Your task to perform on an android device: uninstall "WhatsApp Messenger" Image 0: 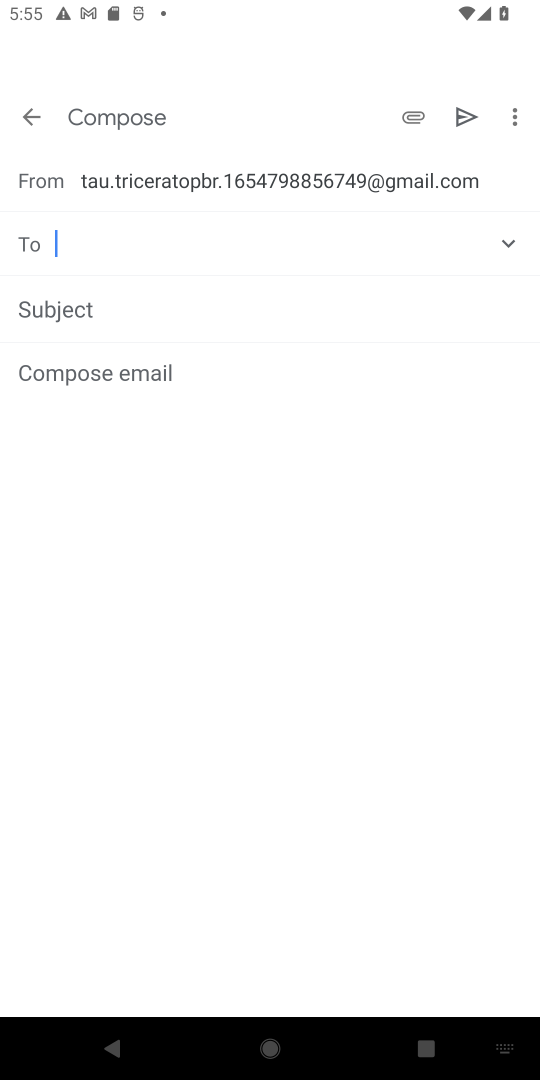
Step 0: press home button
Your task to perform on an android device: uninstall "WhatsApp Messenger" Image 1: 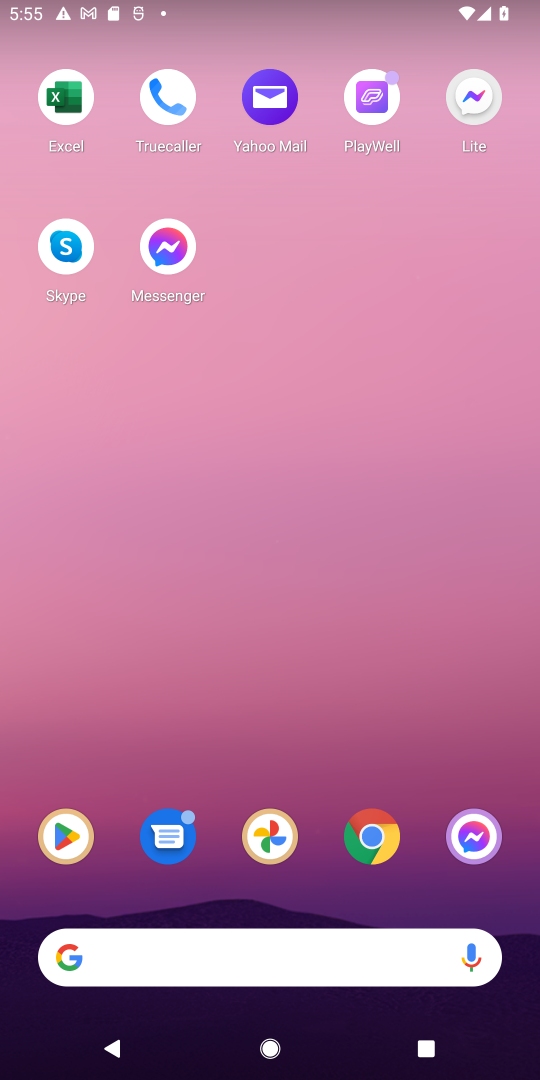
Step 1: click (66, 841)
Your task to perform on an android device: uninstall "WhatsApp Messenger" Image 2: 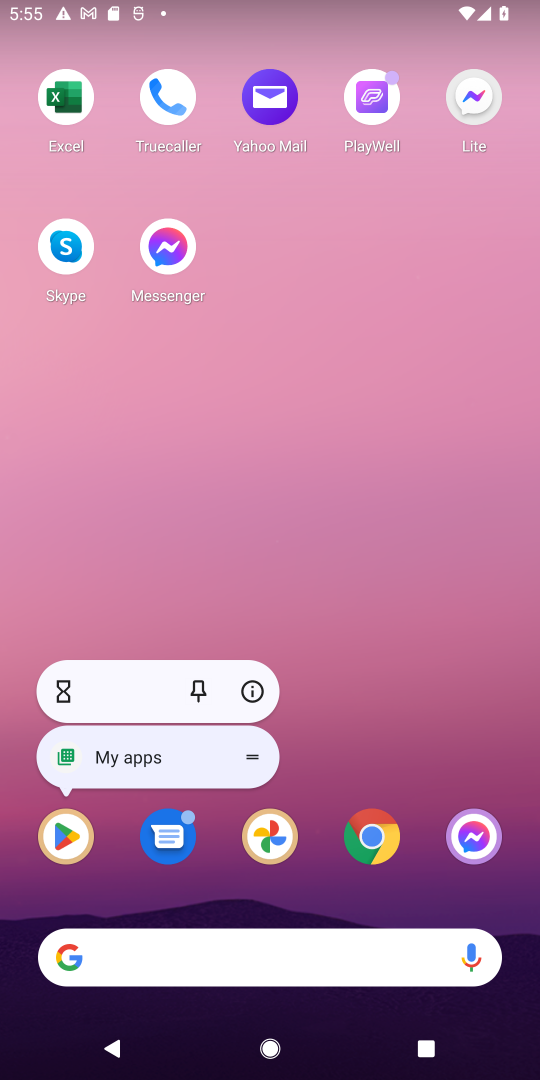
Step 2: click (70, 836)
Your task to perform on an android device: uninstall "WhatsApp Messenger" Image 3: 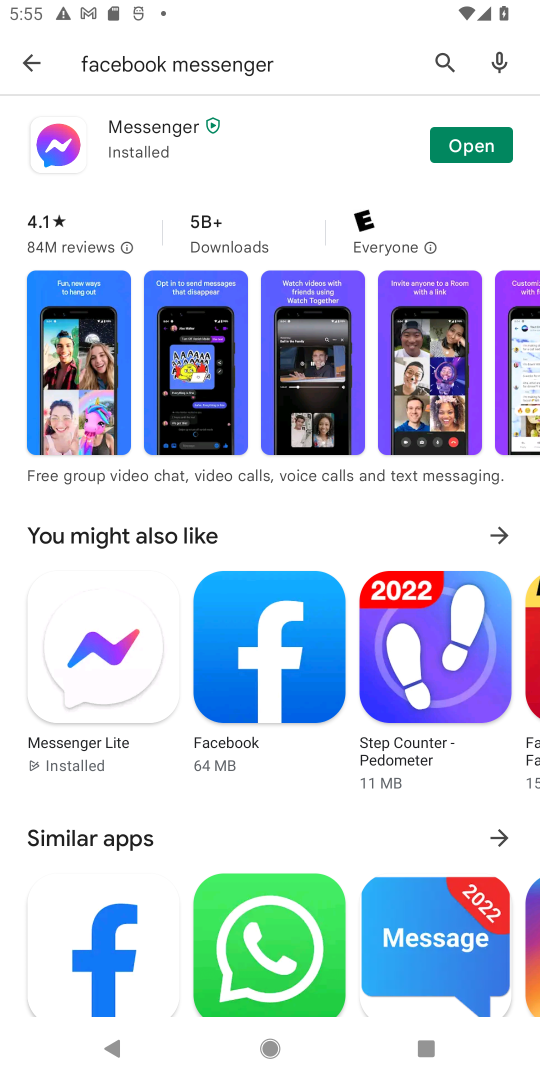
Step 3: click (442, 52)
Your task to perform on an android device: uninstall "WhatsApp Messenger" Image 4: 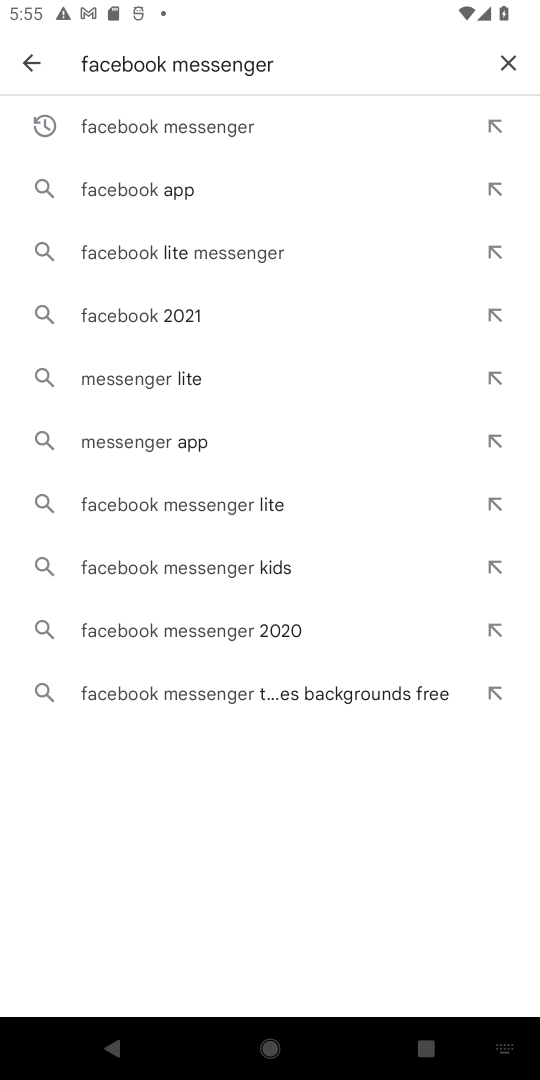
Step 4: click (511, 59)
Your task to perform on an android device: uninstall "WhatsApp Messenger" Image 5: 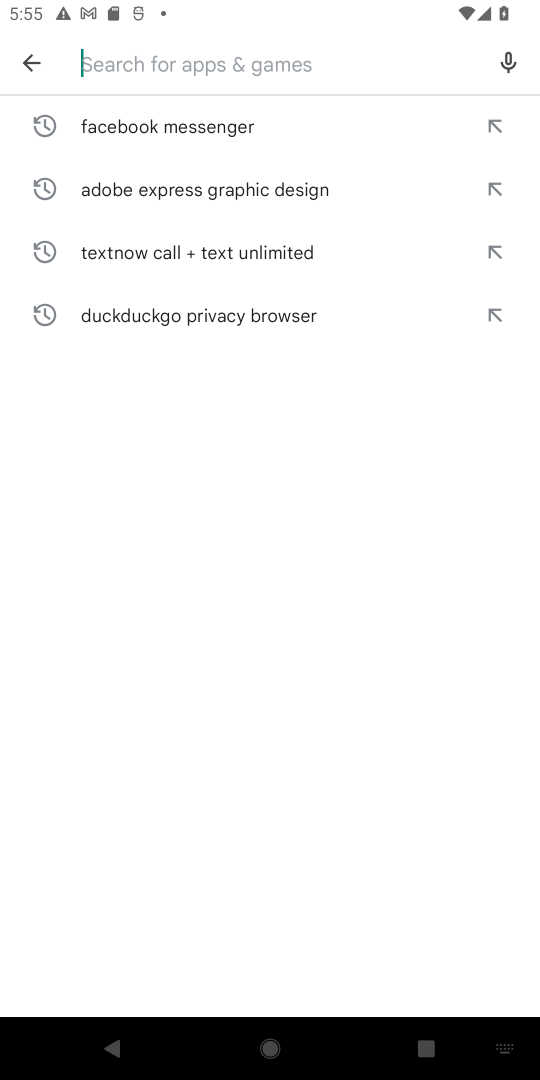
Step 5: type "WhatsApp Messenger"
Your task to perform on an android device: uninstall "WhatsApp Messenger" Image 6: 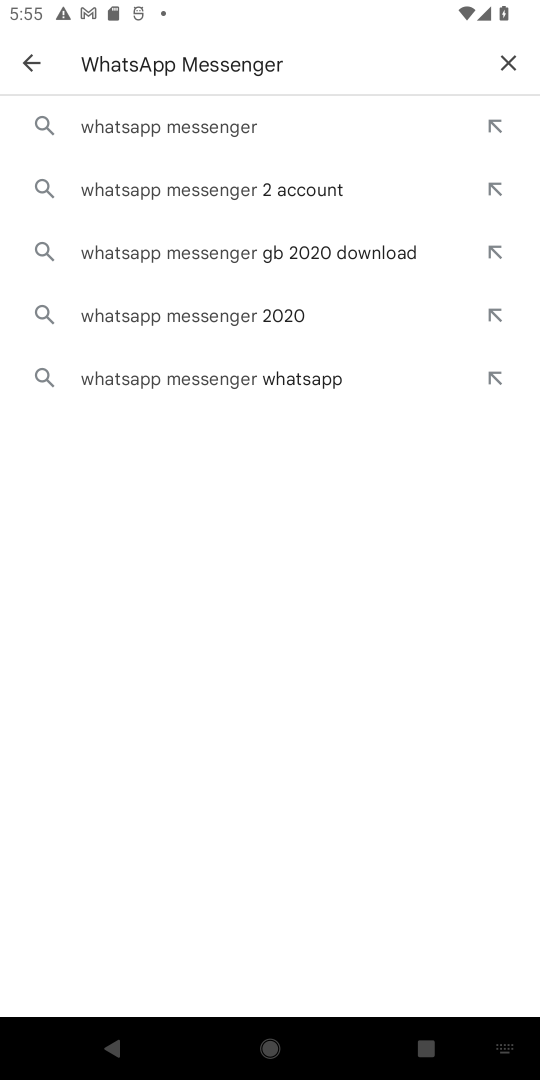
Step 6: click (211, 129)
Your task to perform on an android device: uninstall "WhatsApp Messenger" Image 7: 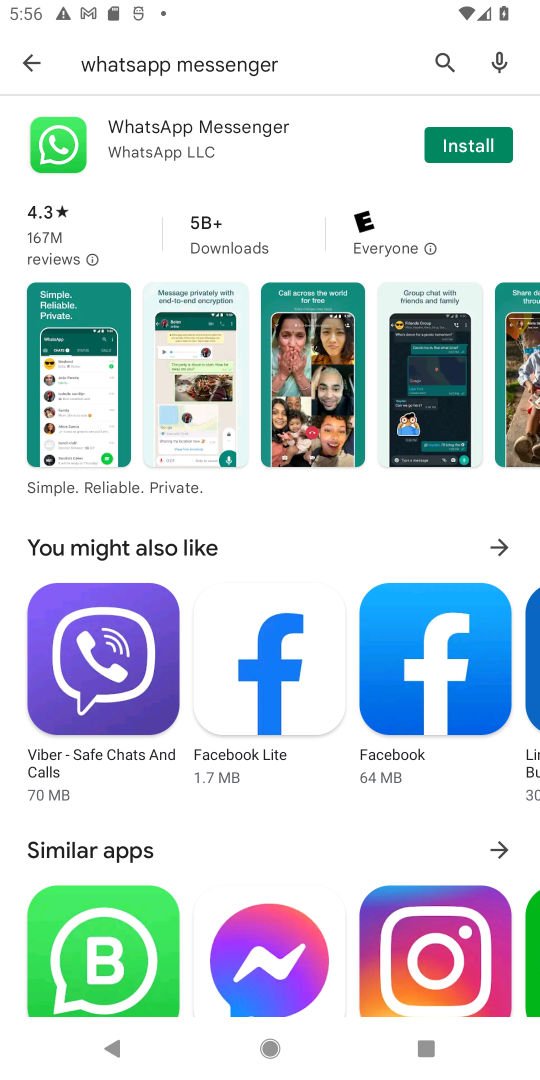
Step 7: task complete